Your task to perform on an android device: Go to Google maps Image 0: 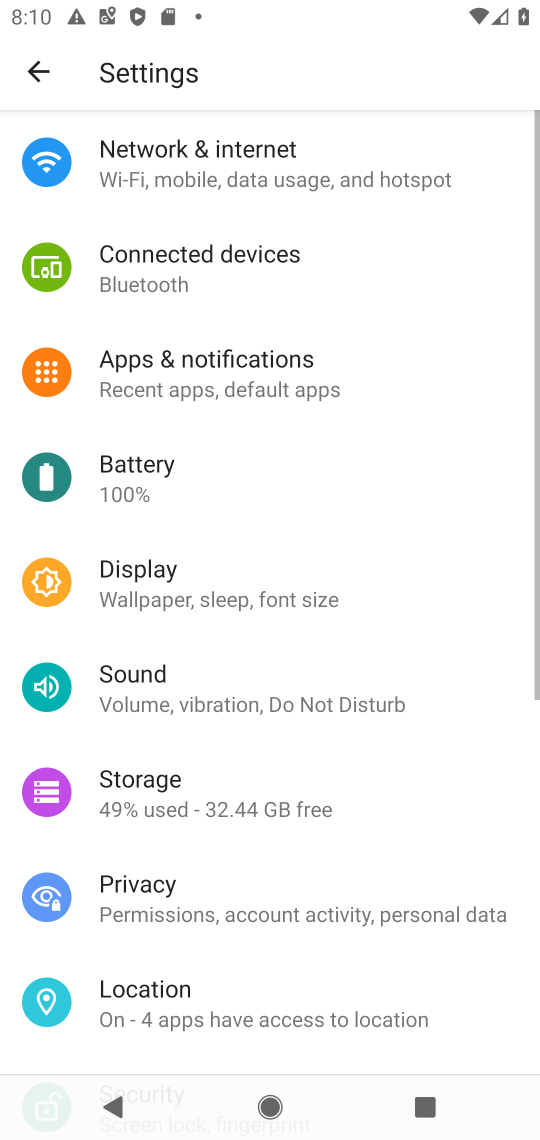
Step 0: press home button
Your task to perform on an android device: Go to Google maps Image 1: 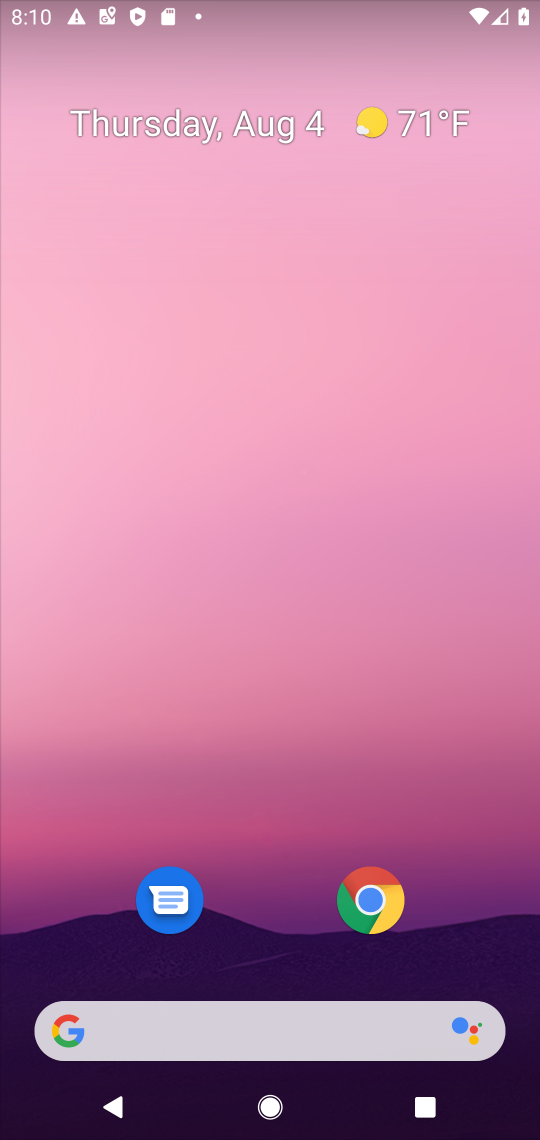
Step 1: drag from (250, 948) to (250, 114)
Your task to perform on an android device: Go to Google maps Image 2: 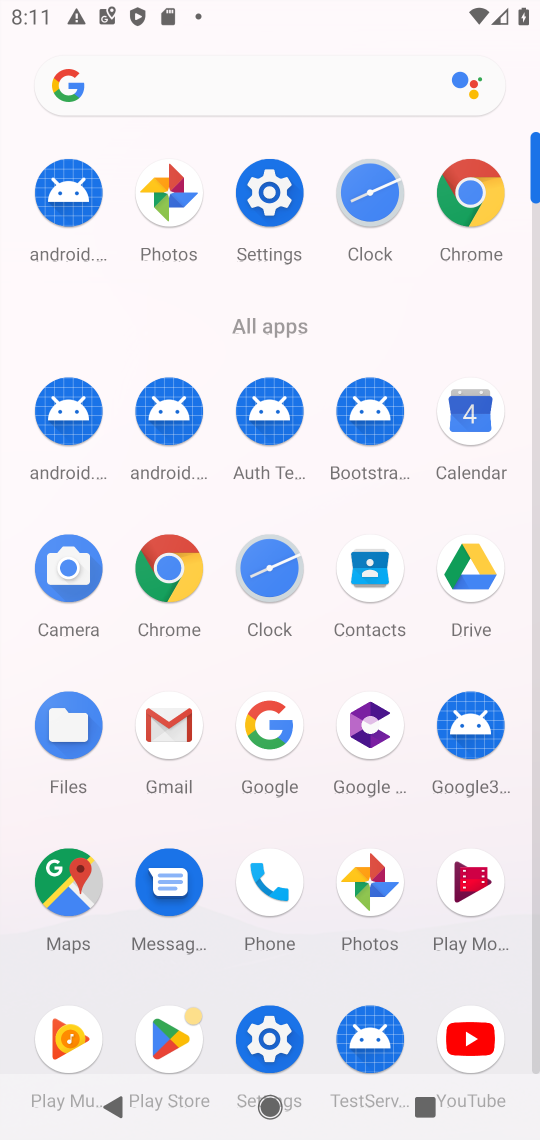
Step 2: click (64, 892)
Your task to perform on an android device: Go to Google maps Image 3: 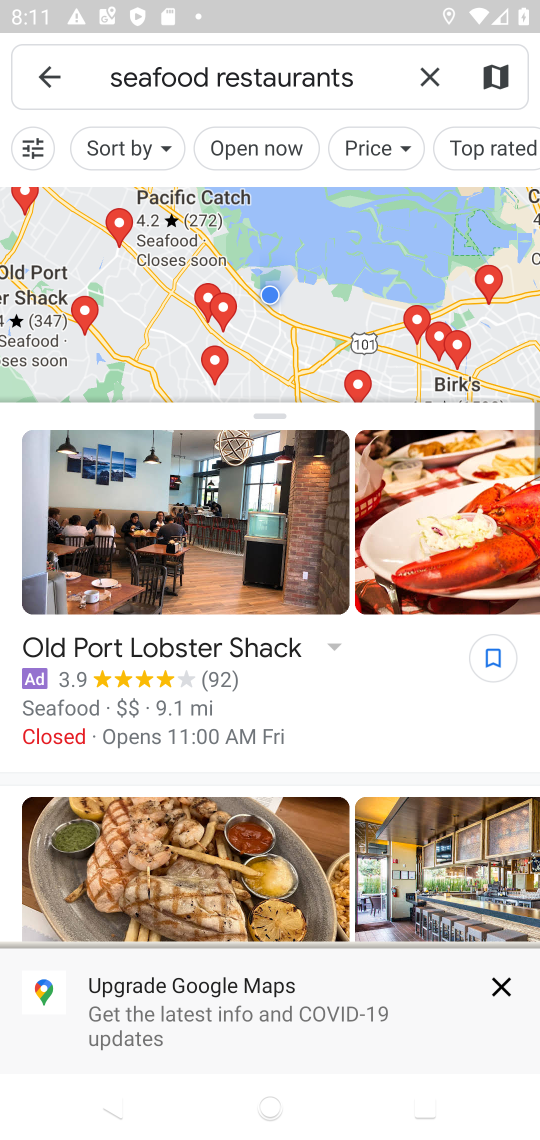
Step 3: task complete